Your task to perform on an android device: choose inbox layout in the gmail app Image 0: 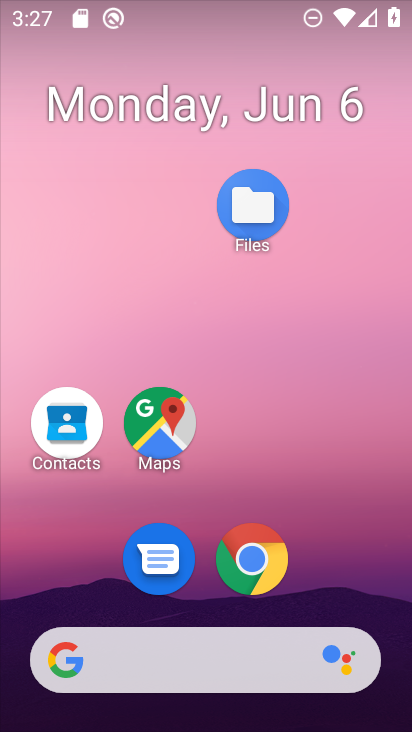
Step 0: drag from (200, 613) to (207, 52)
Your task to perform on an android device: choose inbox layout in the gmail app Image 1: 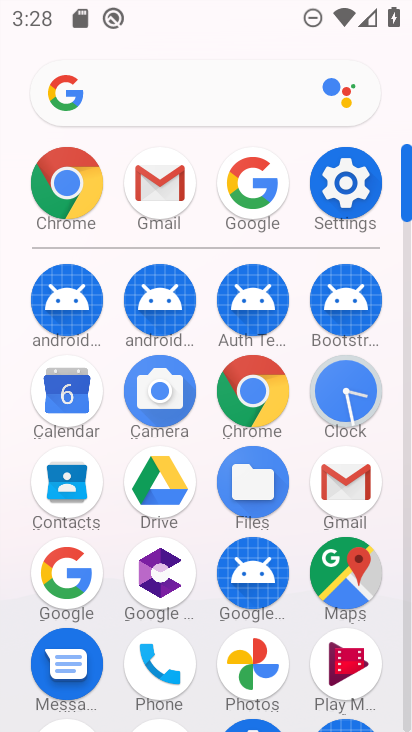
Step 1: click (357, 481)
Your task to perform on an android device: choose inbox layout in the gmail app Image 2: 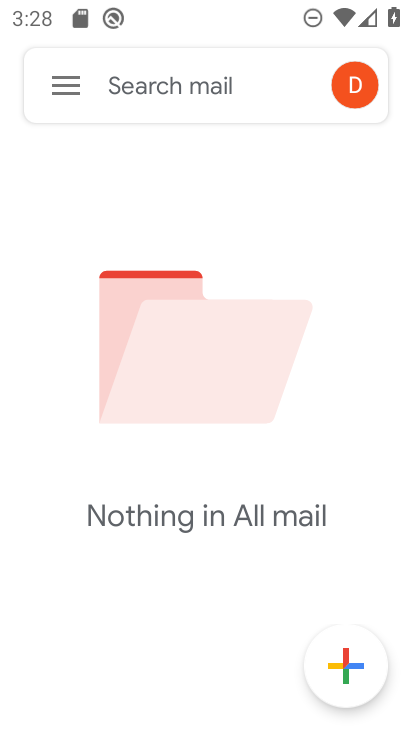
Step 2: click (63, 86)
Your task to perform on an android device: choose inbox layout in the gmail app Image 3: 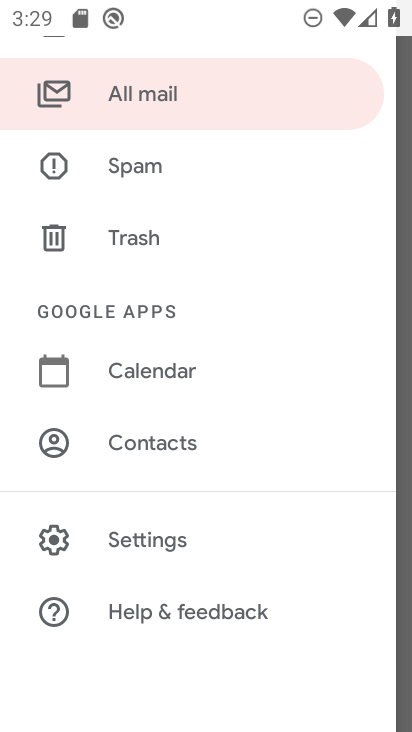
Step 3: click (118, 539)
Your task to perform on an android device: choose inbox layout in the gmail app Image 4: 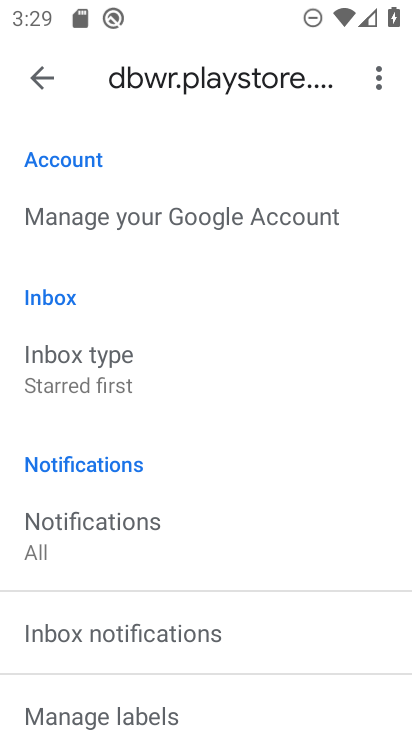
Step 4: task complete